Your task to perform on an android device: Set the phone to "Do not disturb". Image 0: 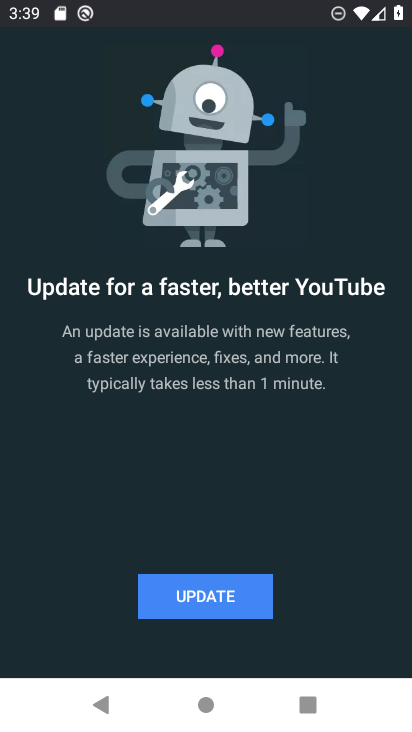
Step 0: press home button
Your task to perform on an android device: Set the phone to "Do not disturb". Image 1: 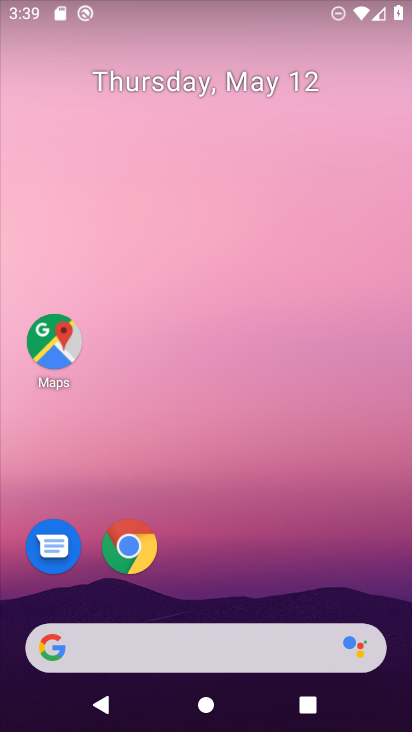
Step 1: drag from (224, 3) to (237, 495)
Your task to perform on an android device: Set the phone to "Do not disturb". Image 2: 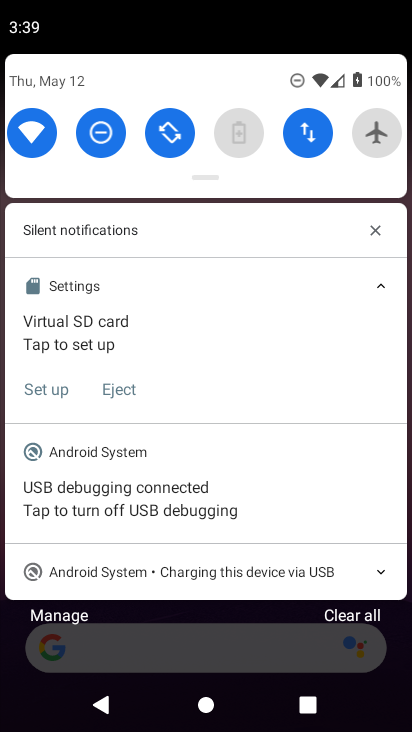
Step 2: click (94, 127)
Your task to perform on an android device: Set the phone to "Do not disturb". Image 3: 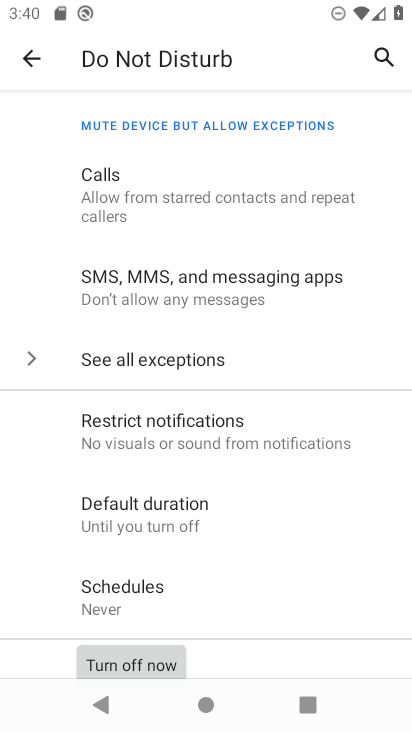
Step 3: task complete